Your task to perform on an android device: turn off airplane mode Image 0: 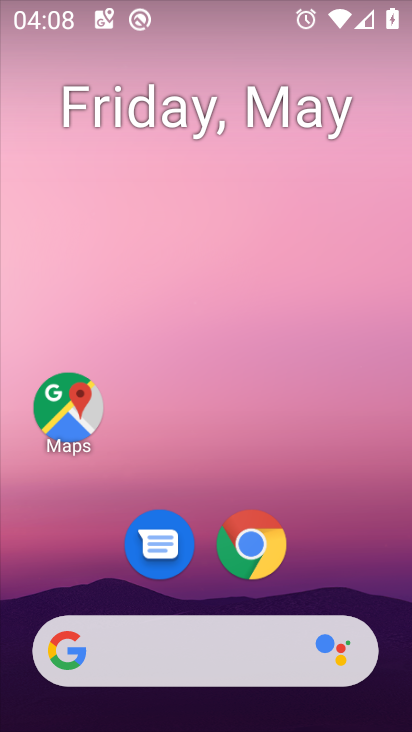
Step 0: drag from (281, 679) to (97, 104)
Your task to perform on an android device: turn off airplane mode Image 1: 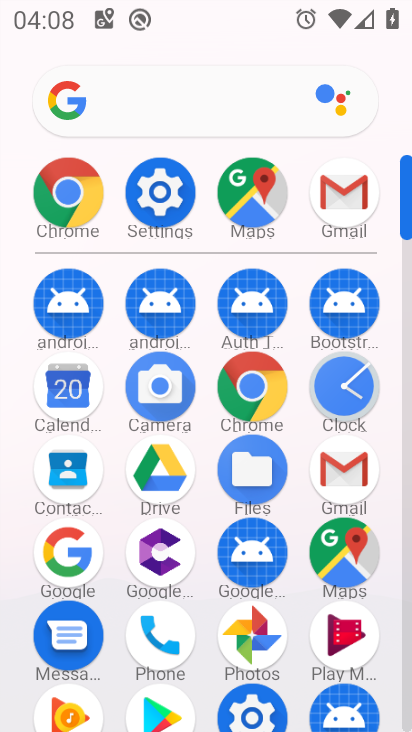
Step 1: click (144, 204)
Your task to perform on an android device: turn off airplane mode Image 2: 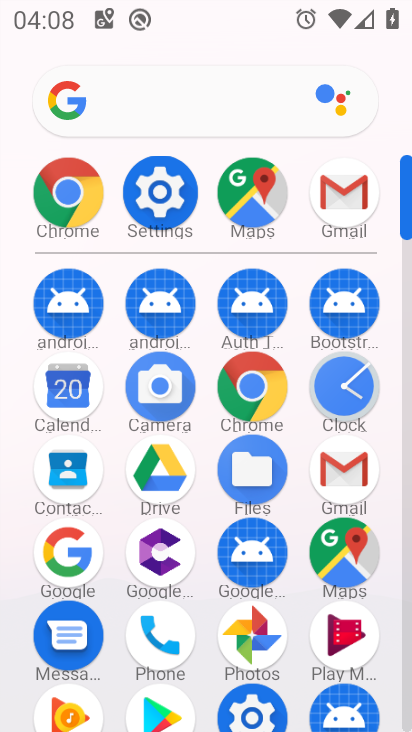
Step 2: click (144, 204)
Your task to perform on an android device: turn off airplane mode Image 3: 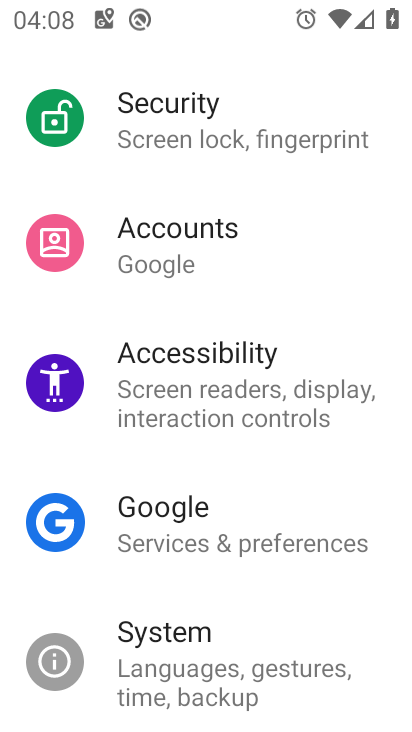
Step 3: drag from (142, 209) to (234, 538)
Your task to perform on an android device: turn off airplane mode Image 4: 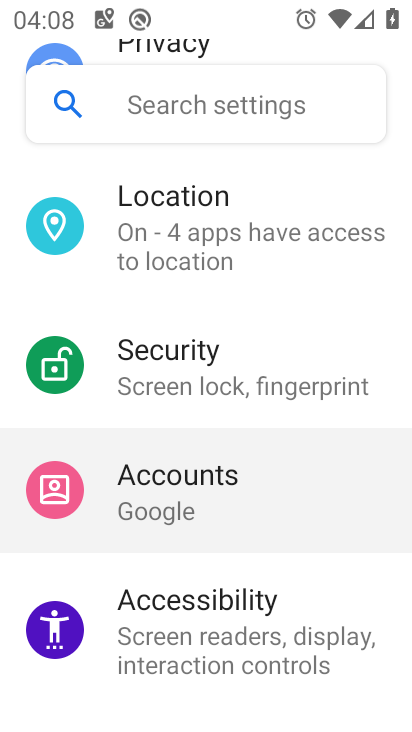
Step 4: drag from (145, 215) to (197, 472)
Your task to perform on an android device: turn off airplane mode Image 5: 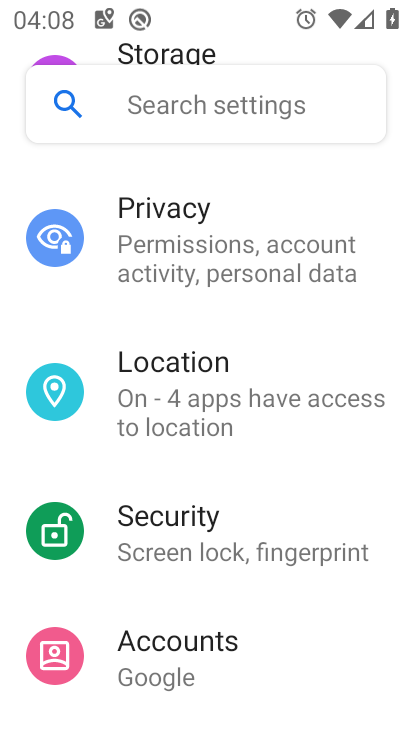
Step 5: drag from (199, 207) to (233, 466)
Your task to perform on an android device: turn off airplane mode Image 6: 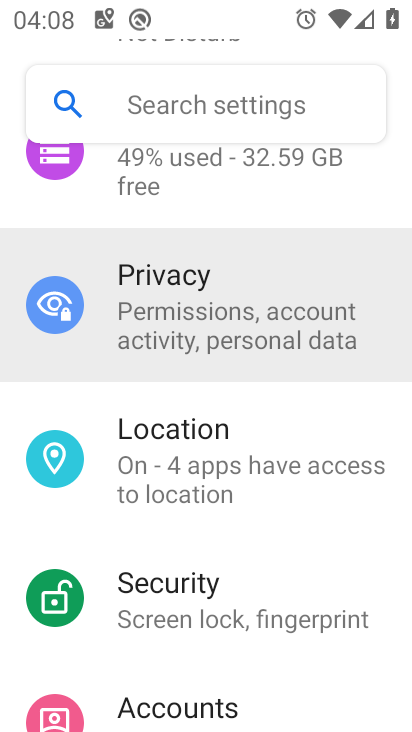
Step 6: drag from (219, 478) to (248, 571)
Your task to perform on an android device: turn off airplane mode Image 7: 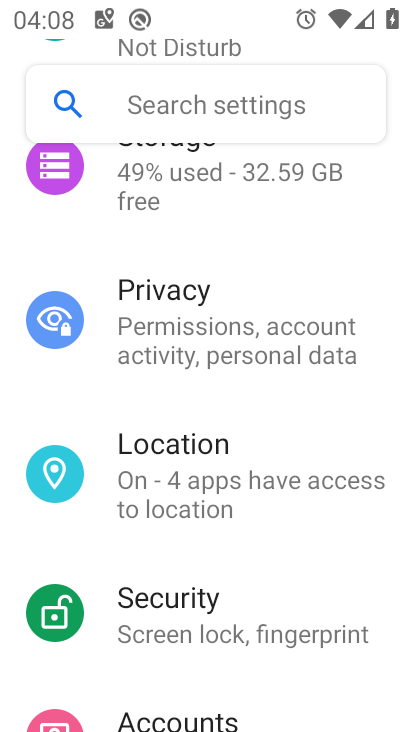
Step 7: drag from (214, 247) to (214, 605)
Your task to perform on an android device: turn off airplane mode Image 8: 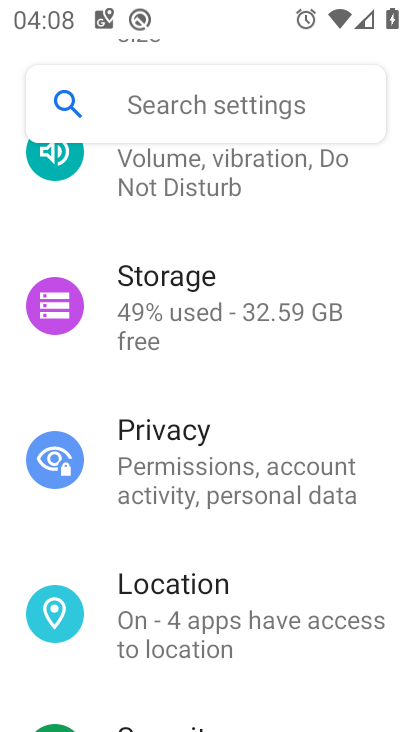
Step 8: drag from (245, 303) to (238, 686)
Your task to perform on an android device: turn off airplane mode Image 9: 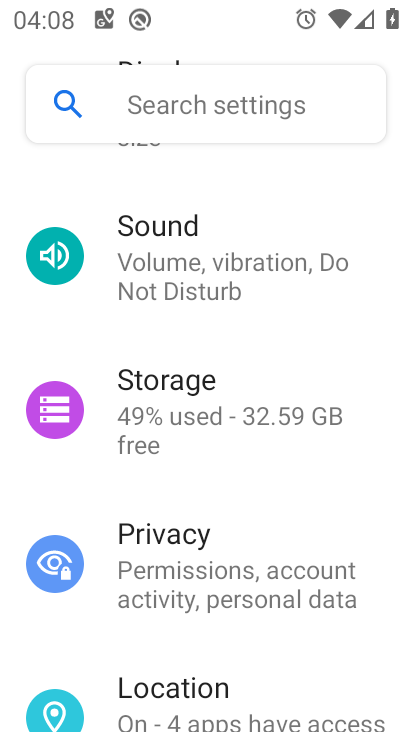
Step 9: drag from (184, 272) to (187, 494)
Your task to perform on an android device: turn off airplane mode Image 10: 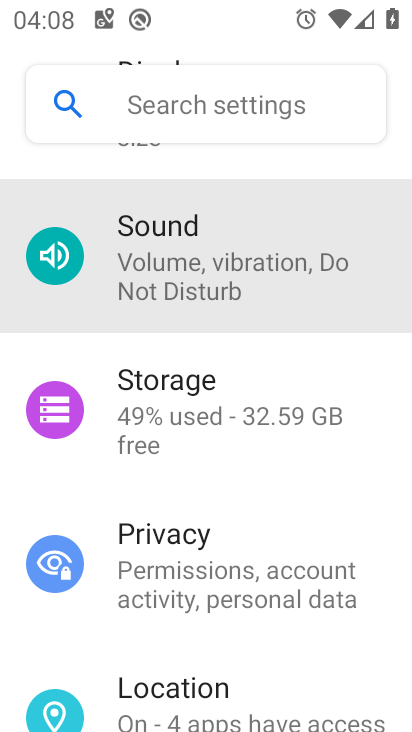
Step 10: drag from (208, 284) to (233, 549)
Your task to perform on an android device: turn off airplane mode Image 11: 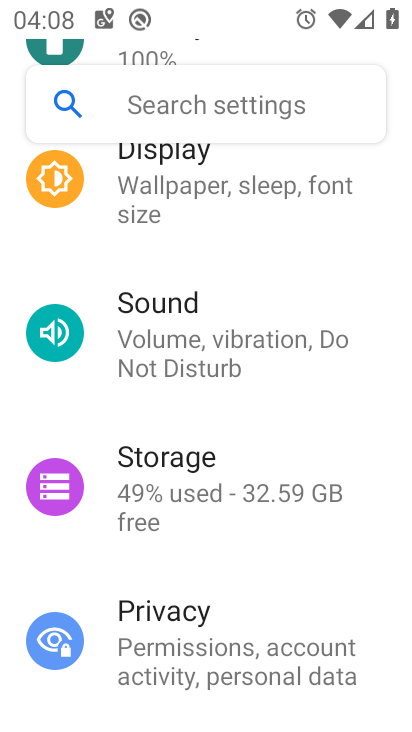
Step 11: drag from (156, 271) to (197, 513)
Your task to perform on an android device: turn off airplane mode Image 12: 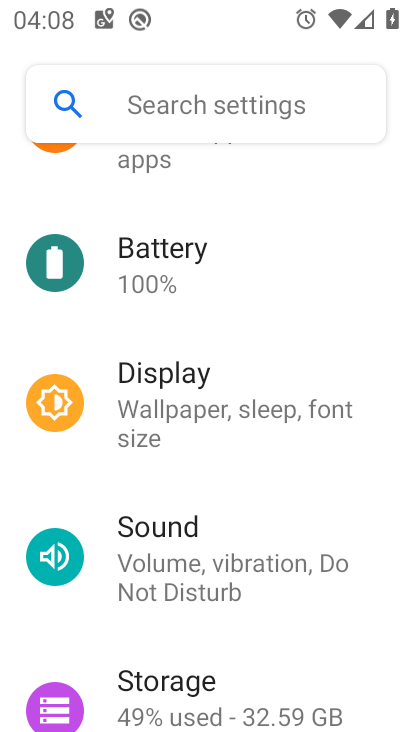
Step 12: drag from (142, 314) to (185, 630)
Your task to perform on an android device: turn off airplane mode Image 13: 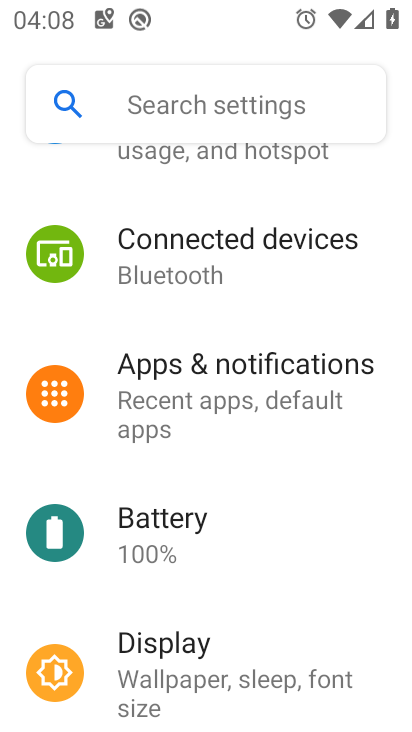
Step 13: drag from (161, 413) to (192, 663)
Your task to perform on an android device: turn off airplane mode Image 14: 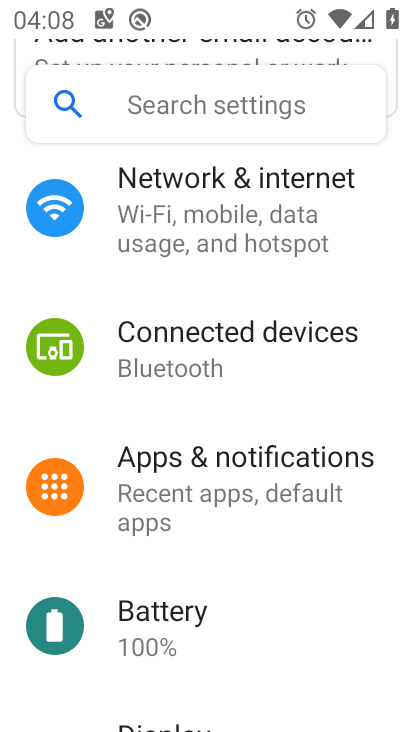
Step 14: drag from (142, 376) to (145, 658)
Your task to perform on an android device: turn off airplane mode Image 15: 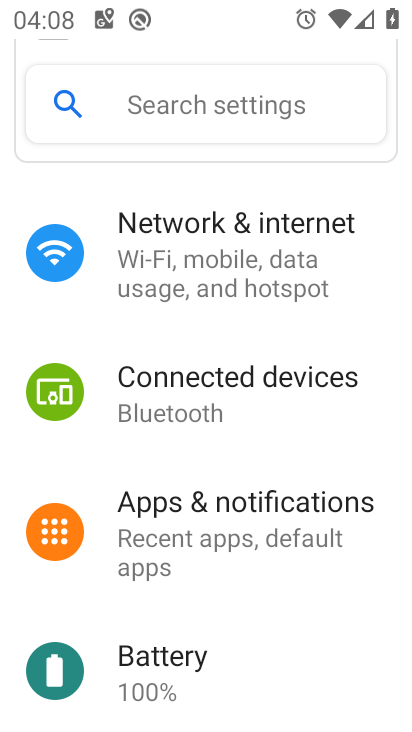
Step 15: drag from (161, 288) to (222, 589)
Your task to perform on an android device: turn off airplane mode Image 16: 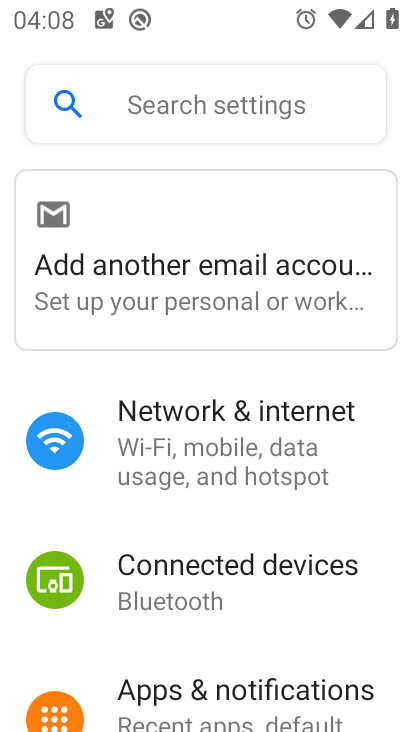
Step 16: drag from (135, 297) to (196, 522)
Your task to perform on an android device: turn off airplane mode Image 17: 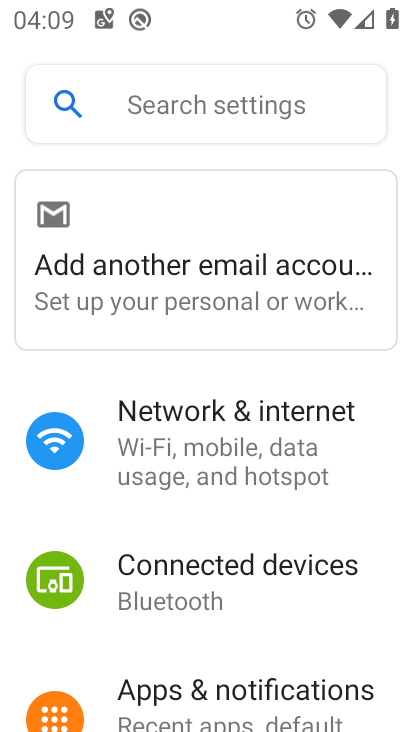
Step 17: drag from (216, 631) to (174, 221)
Your task to perform on an android device: turn off airplane mode Image 18: 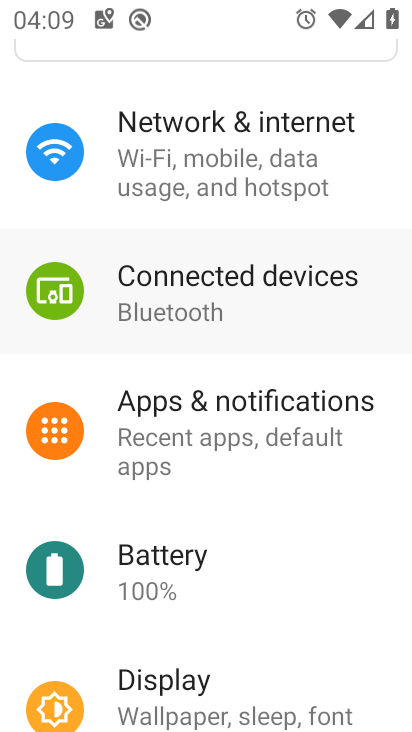
Step 18: drag from (255, 530) to (180, 124)
Your task to perform on an android device: turn off airplane mode Image 19: 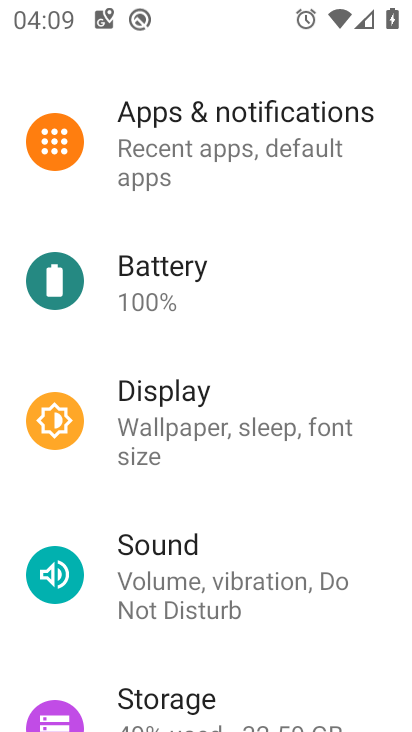
Step 19: drag from (246, 453) to (235, 47)
Your task to perform on an android device: turn off airplane mode Image 20: 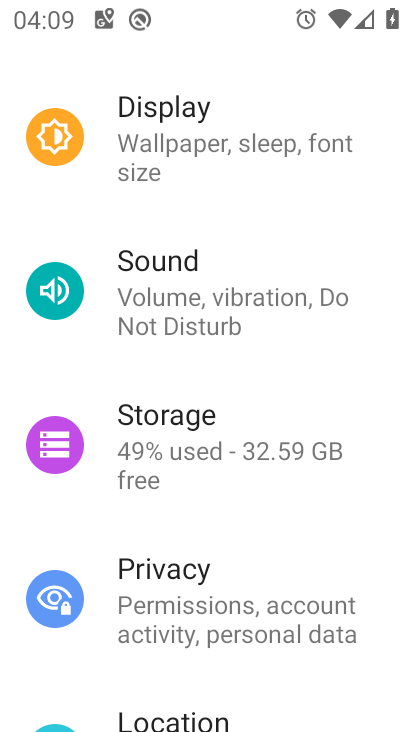
Step 20: drag from (165, 250) to (199, 622)
Your task to perform on an android device: turn off airplane mode Image 21: 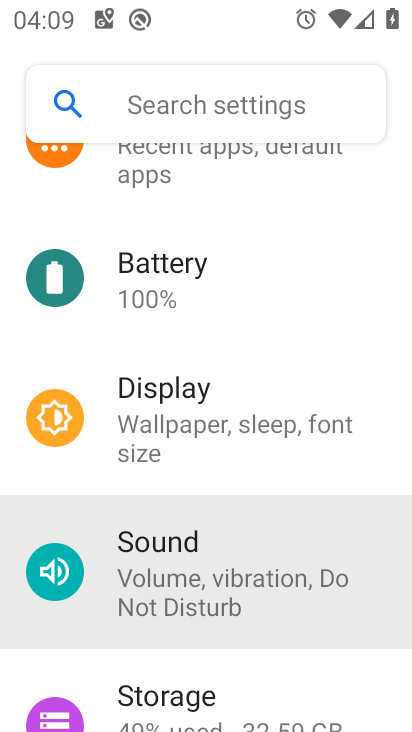
Step 21: drag from (152, 302) to (208, 627)
Your task to perform on an android device: turn off airplane mode Image 22: 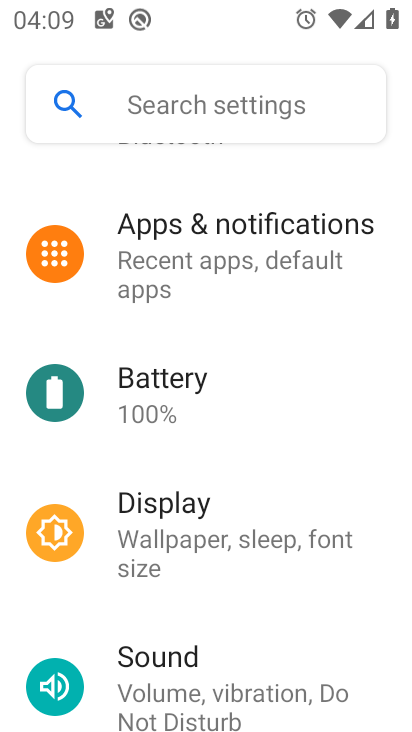
Step 22: drag from (159, 217) to (215, 628)
Your task to perform on an android device: turn off airplane mode Image 23: 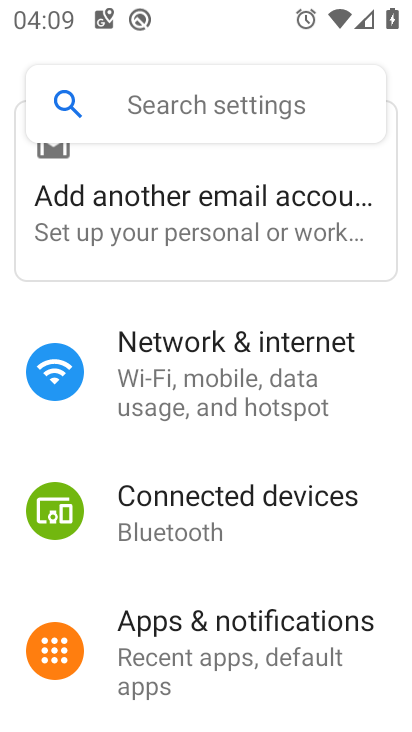
Step 23: drag from (156, 267) to (214, 670)
Your task to perform on an android device: turn off airplane mode Image 24: 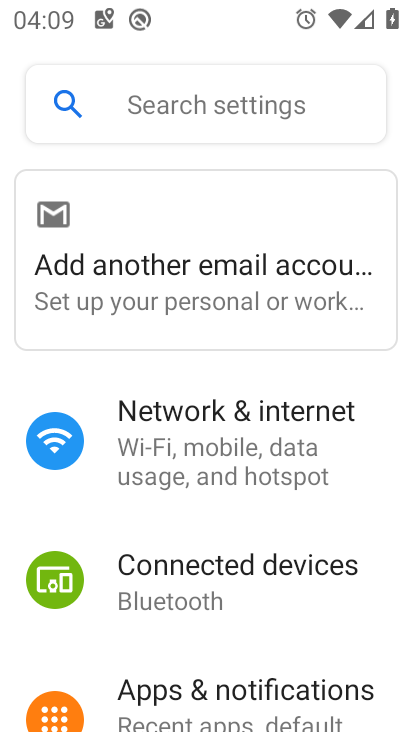
Step 24: click (223, 490)
Your task to perform on an android device: turn off airplane mode Image 25: 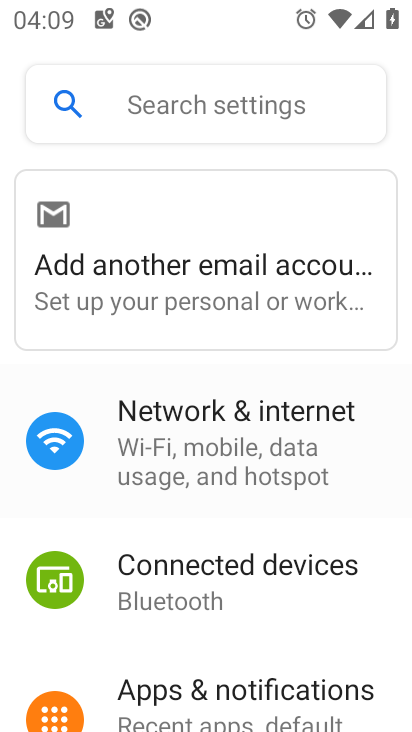
Step 25: click (228, 459)
Your task to perform on an android device: turn off airplane mode Image 26: 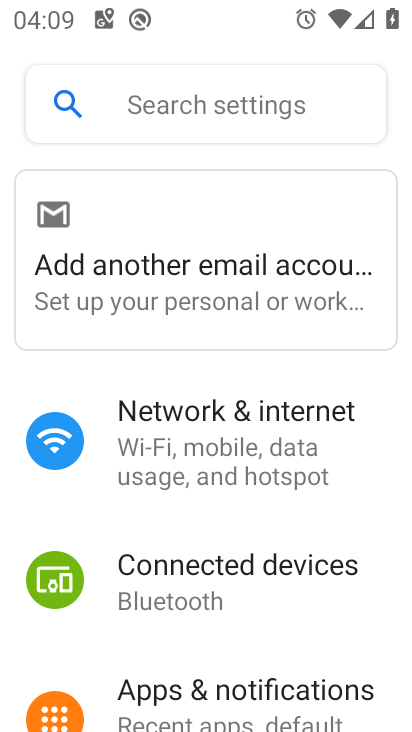
Step 26: click (229, 456)
Your task to perform on an android device: turn off airplane mode Image 27: 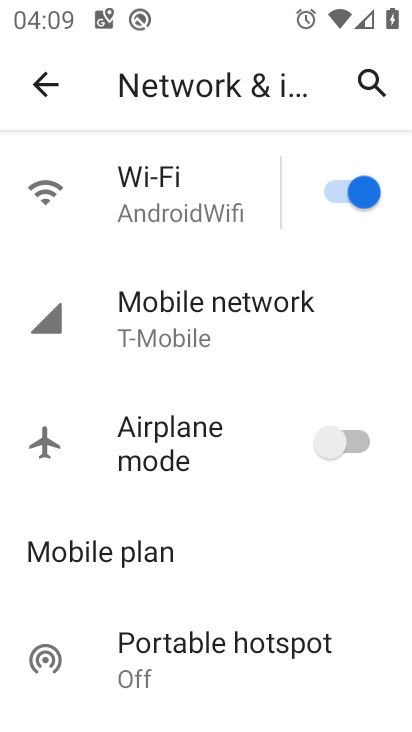
Step 27: task complete